Your task to perform on an android device: turn off location history Image 0: 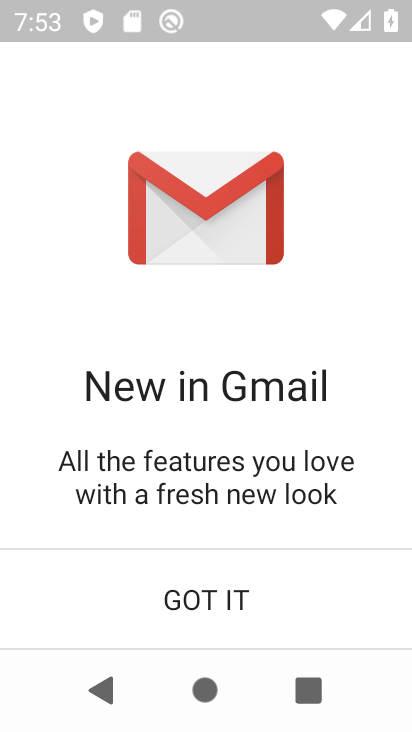
Step 0: click (320, 539)
Your task to perform on an android device: turn off location history Image 1: 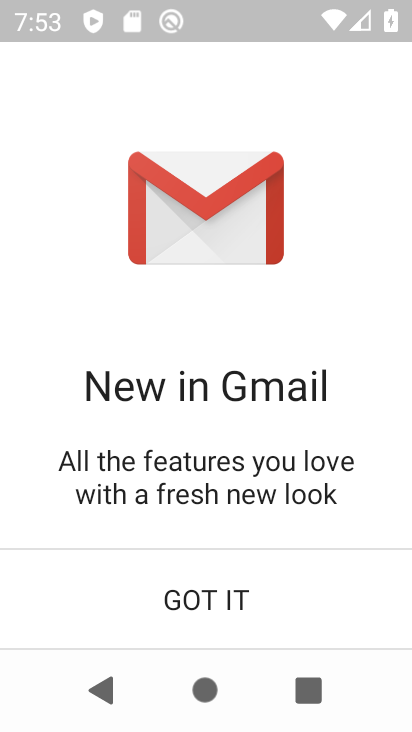
Step 1: press home button
Your task to perform on an android device: turn off location history Image 2: 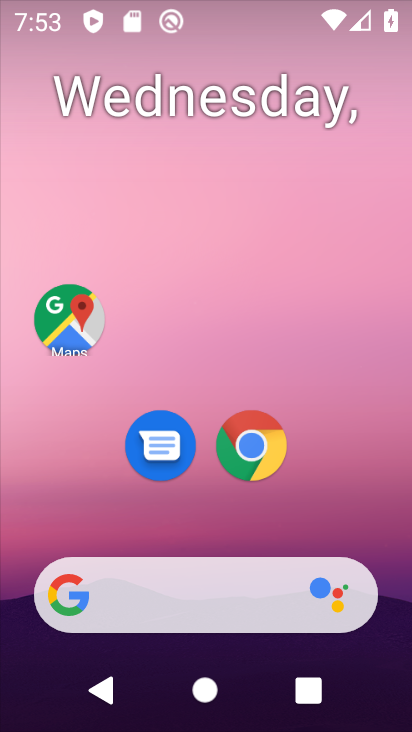
Step 2: drag from (348, 543) to (320, 7)
Your task to perform on an android device: turn off location history Image 3: 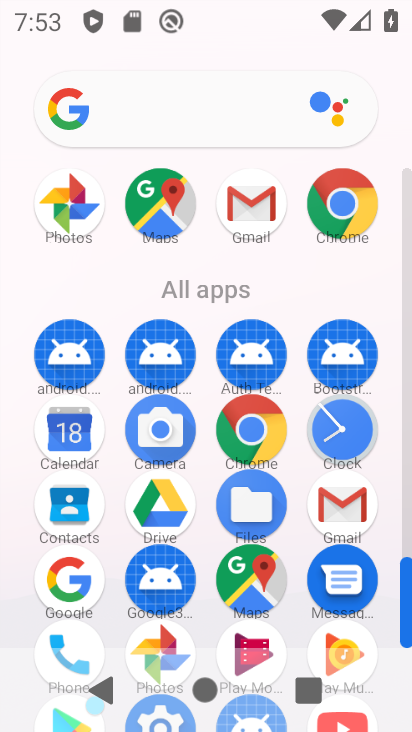
Step 3: drag from (208, 548) to (240, 247)
Your task to perform on an android device: turn off location history Image 4: 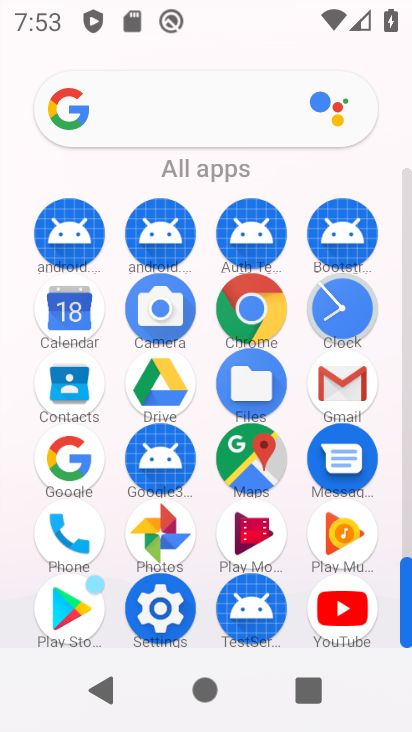
Step 4: click (164, 627)
Your task to perform on an android device: turn off location history Image 5: 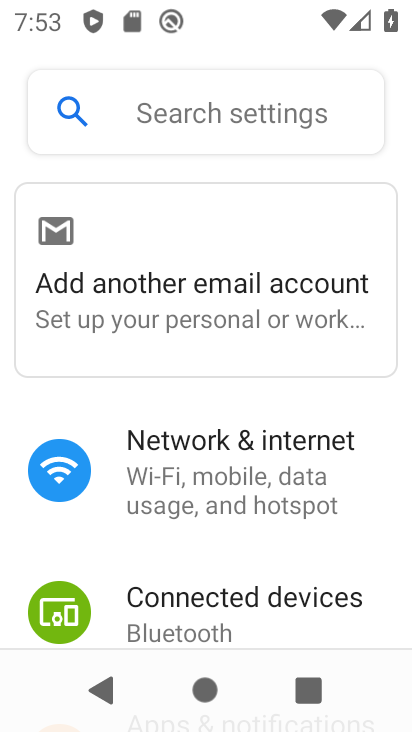
Step 5: drag from (226, 637) to (322, 180)
Your task to perform on an android device: turn off location history Image 6: 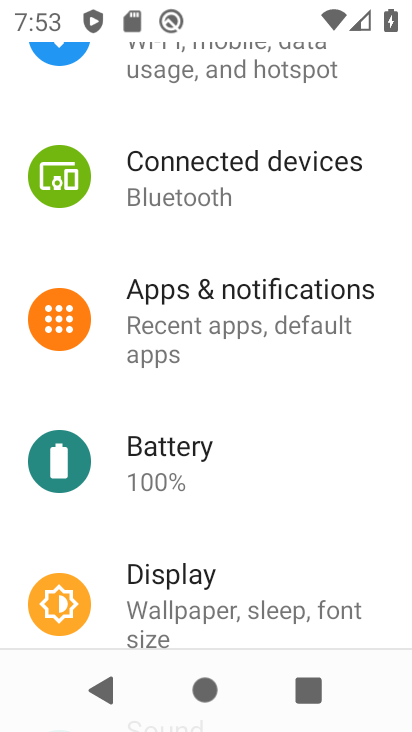
Step 6: drag from (167, 599) to (215, 224)
Your task to perform on an android device: turn off location history Image 7: 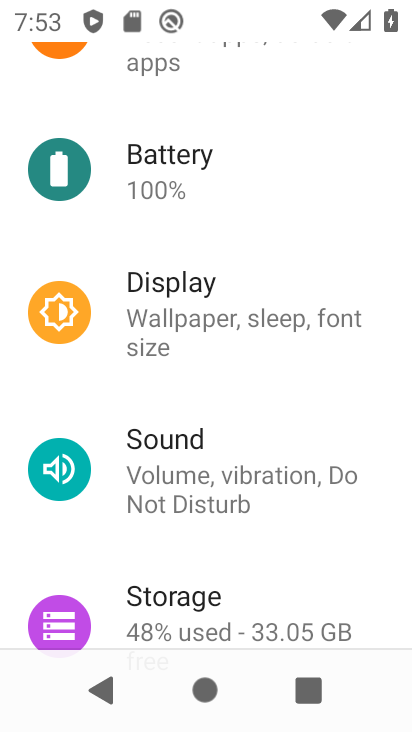
Step 7: drag from (161, 579) to (201, 269)
Your task to perform on an android device: turn off location history Image 8: 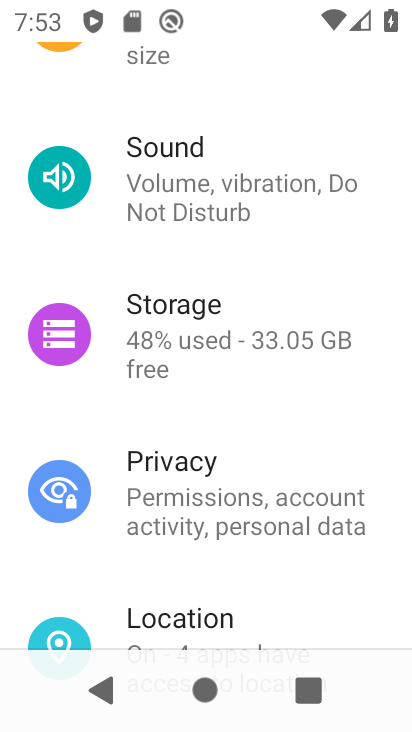
Step 8: click (156, 604)
Your task to perform on an android device: turn off location history Image 9: 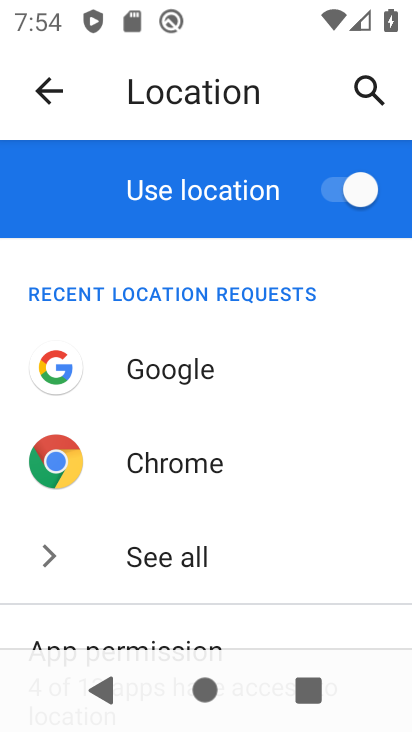
Step 9: drag from (208, 576) to (300, 184)
Your task to perform on an android device: turn off location history Image 10: 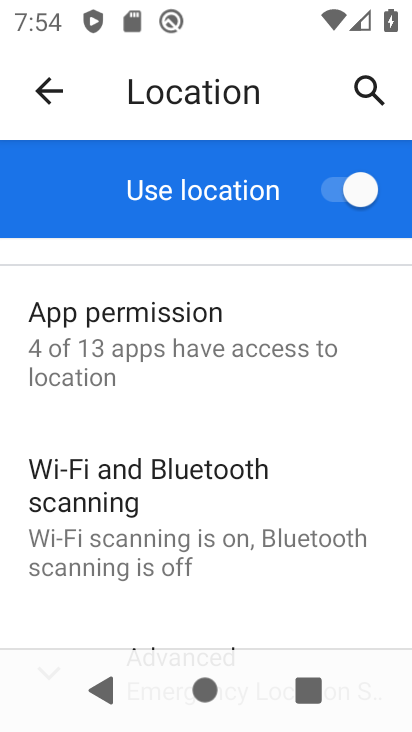
Step 10: drag from (175, 582) to (236, 266)
Your task to perform on an android device: turn off location history Image 11: 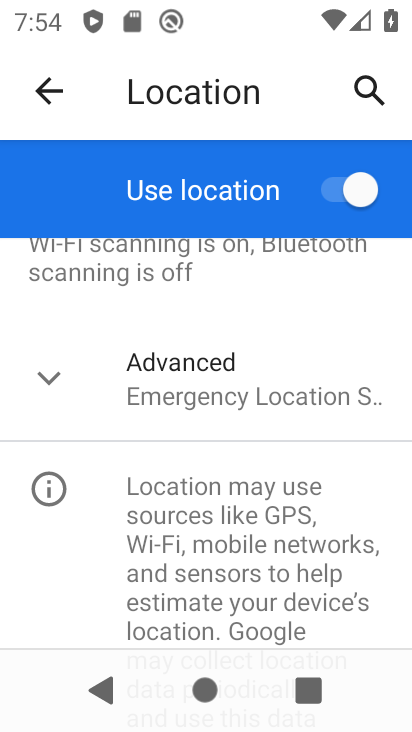
Step 11: drag from (189, 501) to (206, 362)
Your task to perform on an android device: turn off location history Image 12: 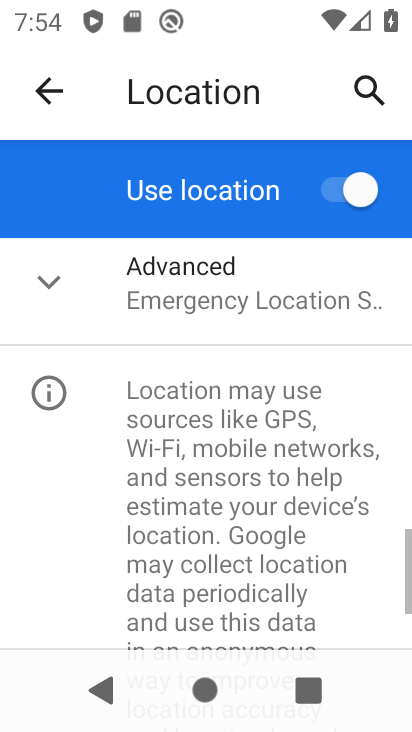
Step 12: click (216, 368)
Your task to perform on an android device: turn off location history Image 13: 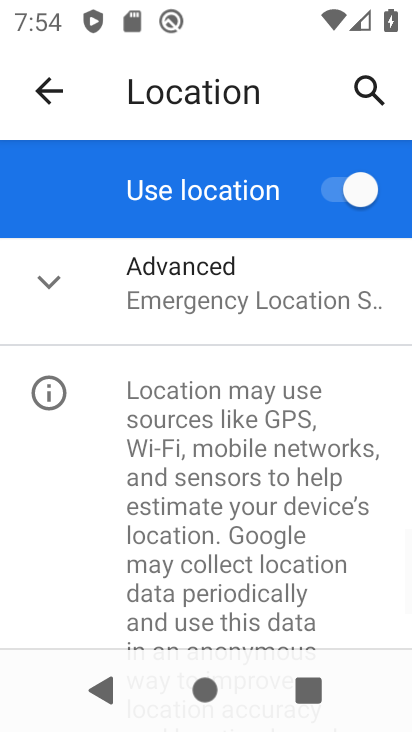
Step 13: click (187, 298)
Your task to perform on an android device: turn off location history Image 14: 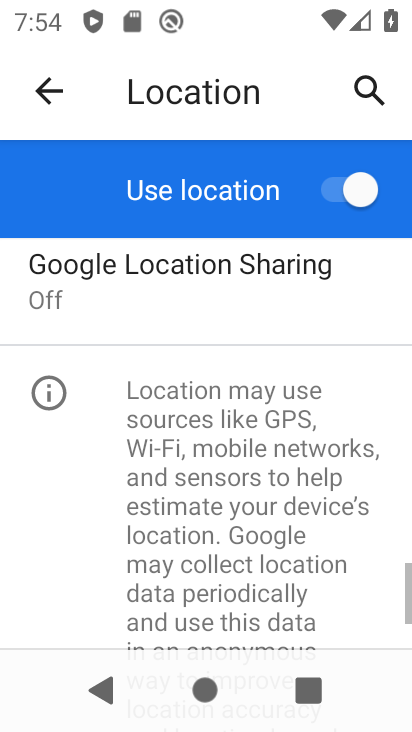
Step 14: drag from (209, 561) to (193, 632)
Your task to perform on an android device: turn off location history Image 15: 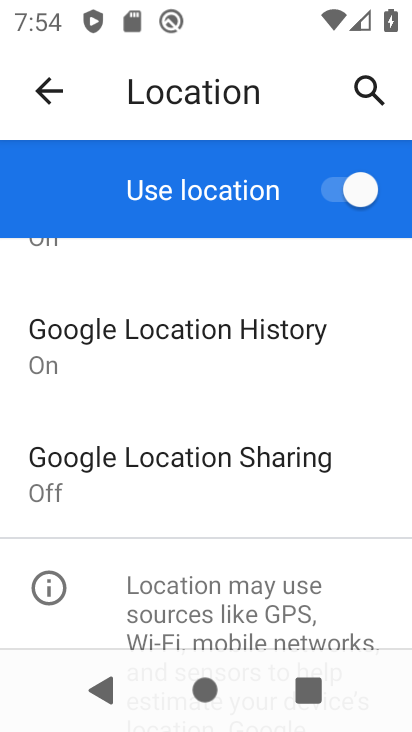
Step 15: click (144, 324)
Your task to perform on an android device: turn off location history Image 16: 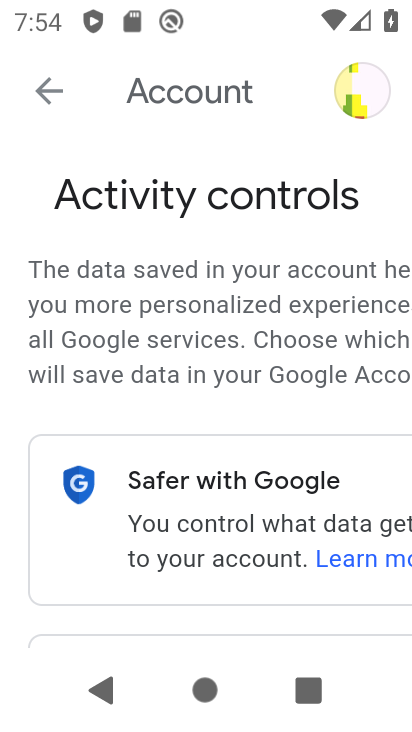
Step 16: drag from (255, 421) to (308, 59)
Your task to perform on an android device: turn off location history Image 17: 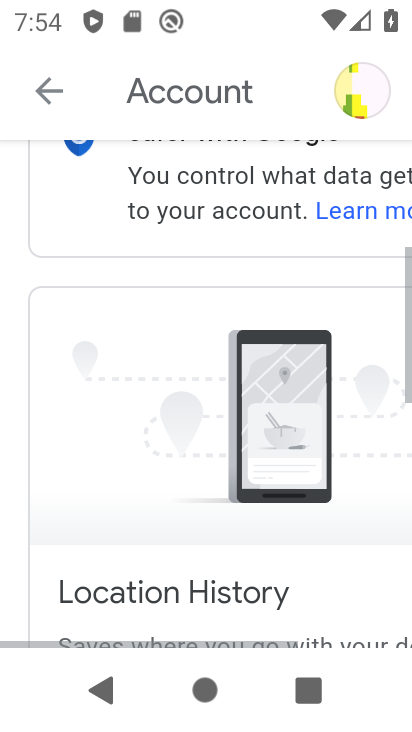
Step 17: drag from (146, 507) to (271, 138)
Your task to perform on an android device: turn off location history Image 18: 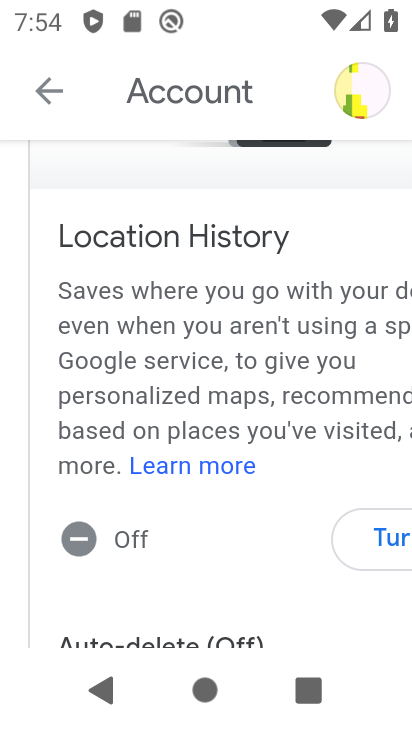
Step 18: click (359, 529)
Your task to perform on an android device: turn off location history Image 19: 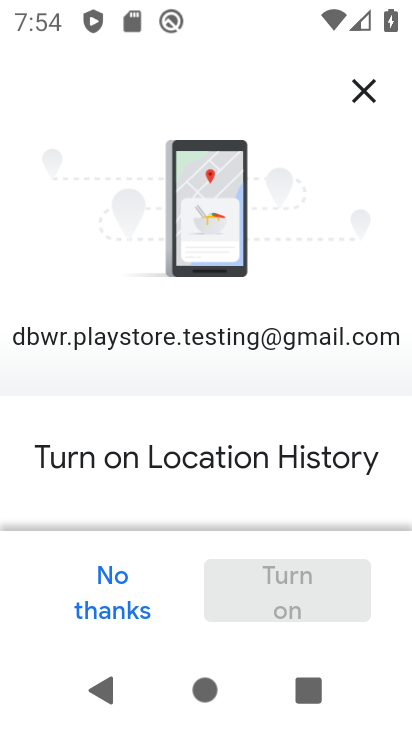
Step 19: click (111, 601)
Your task to perform on an android device: turn off location history Image 20: 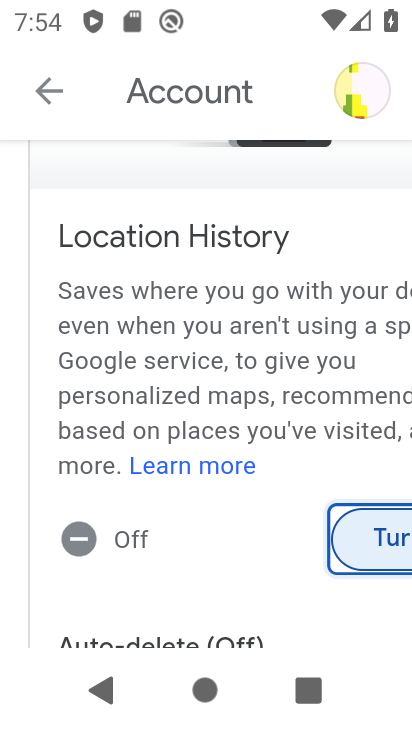
Step 20: task complete